Your task to perform on an android device: allow notifications from all sites in the chrome app Image 0: 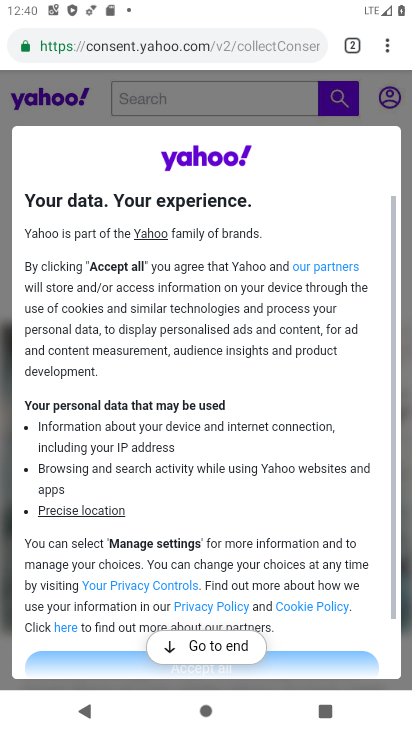
Step 0: click (399, 47)
Your task to perform on an android device: allow notifications from all sites in the chrome app Image 1: 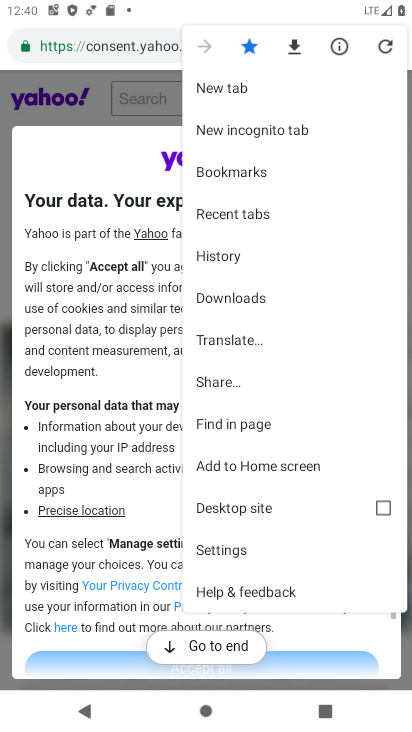
Step 1: click (228, 548)
Your task to perform on an android device: allow notifications from all sites in the chrome app Image 2: 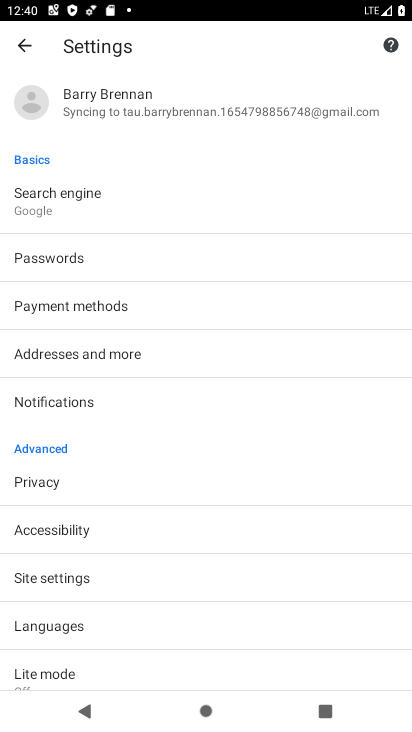
Step 2: click (73, 389)
Your task to perform on an android device: allow notifications from all sites in the chrome app Image 3: 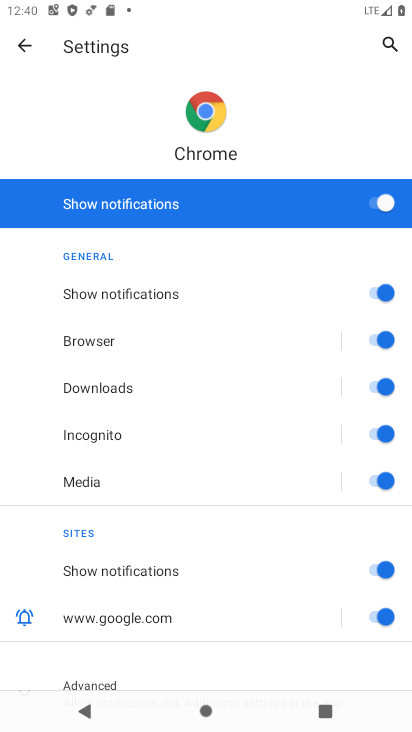
Step 3: task complete